Your task to perform on an android device: move a message to another label in the gmail app Image 0: 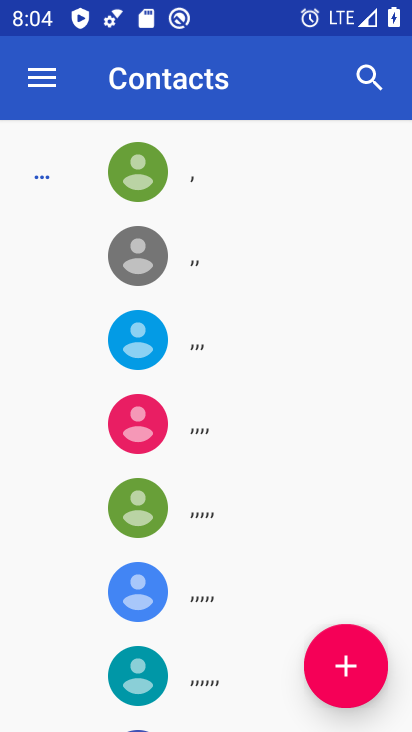
Step 0: press home button
Your task to perform on an android device: move a message to another label in the gmail app Image 1: 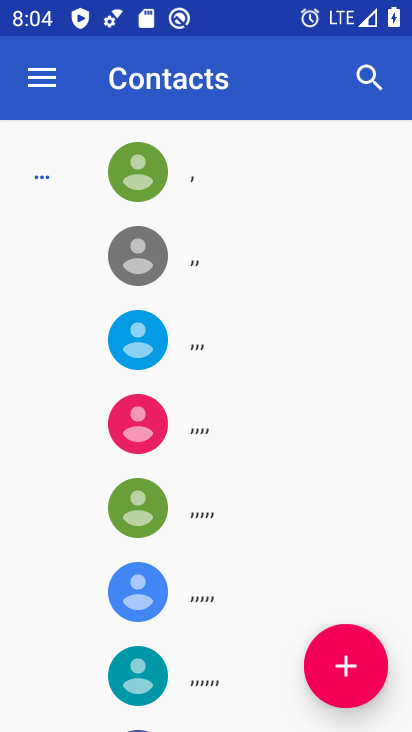
Step 1: press home button
Your task to perform on an android device: move a message to another label in the gmail app Image 2: 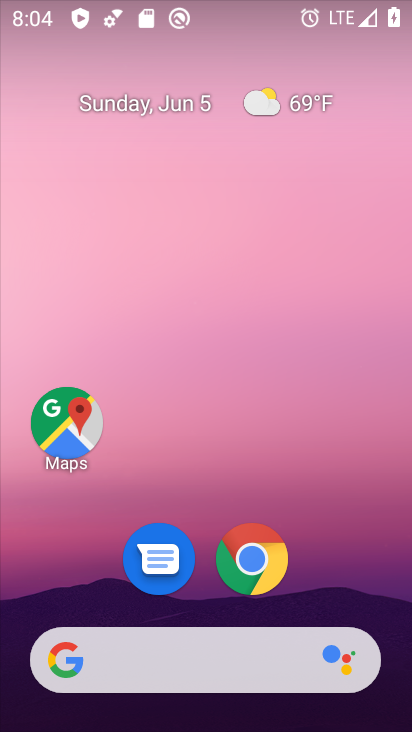
Step 2: drag from (328, 559) to (325, 179)
Your task to perform on an android device: move a message to another label in the gmail app Image 3: 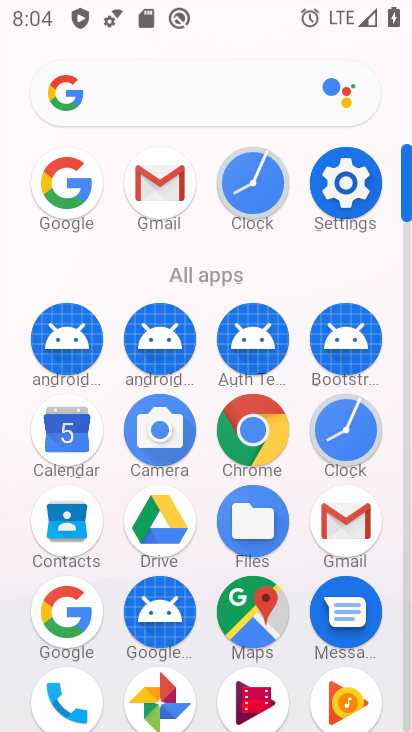
Step 3: click (155, 206)
Your task to perform on an android device: move a message to another label in the gmail app Image 4: 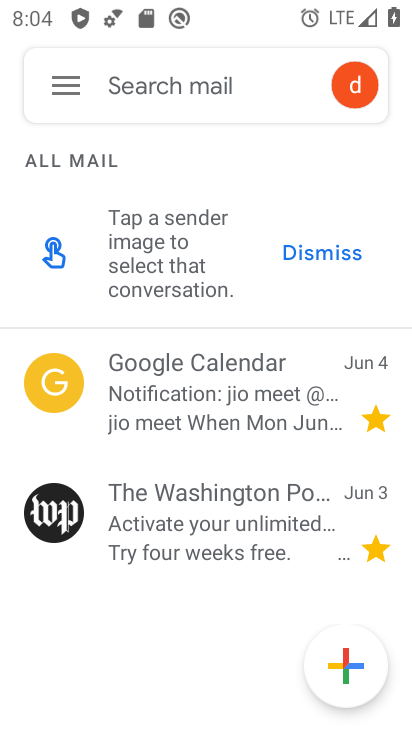
Step 4: click (41, 81)
Your task to perform on an android device: move a message to another label in the gmail app Image 5: 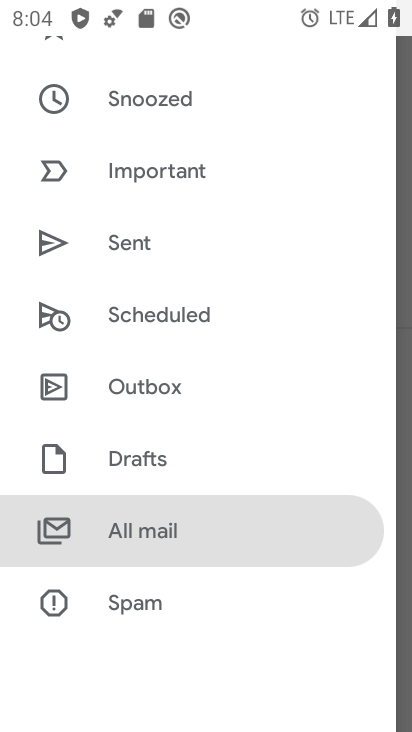
Step 5: click (167, 540)
Your task to perform on an android device: move a message to another label in the gmail app Image 6: 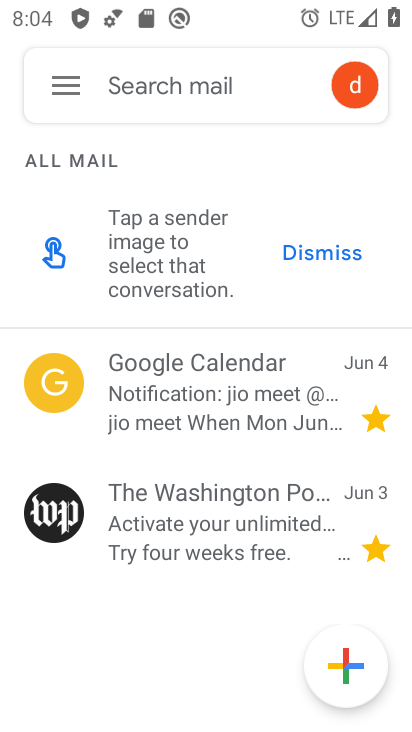
Step 6: click (212, 403)
Your task to perform on an android device: move a message to another label in the gmail app Image 7: 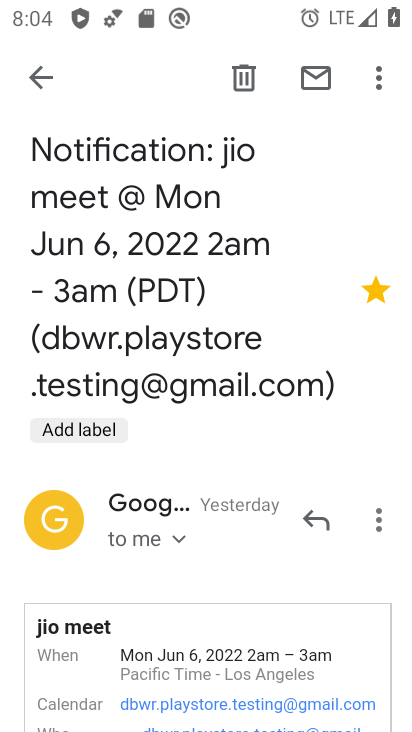
Step 7: click (383, 68)
Your task to perform on an android device: move a message to another label in the gmail app Image 8: 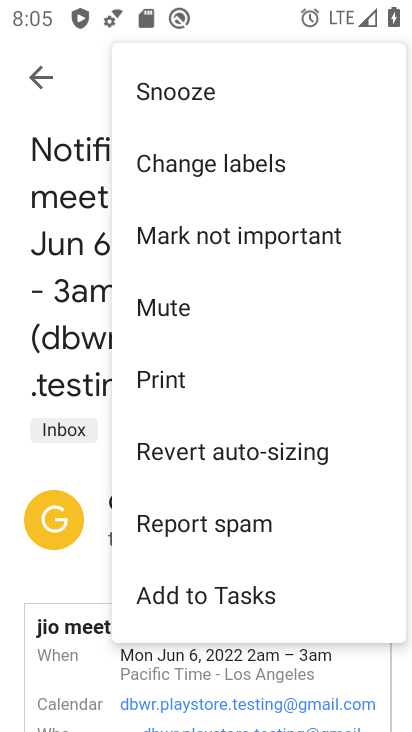
Step 8: drag from (292, 411) to (0, 418)
Your task to perform on an android device: move a message to another label in the gmail app Image 9: 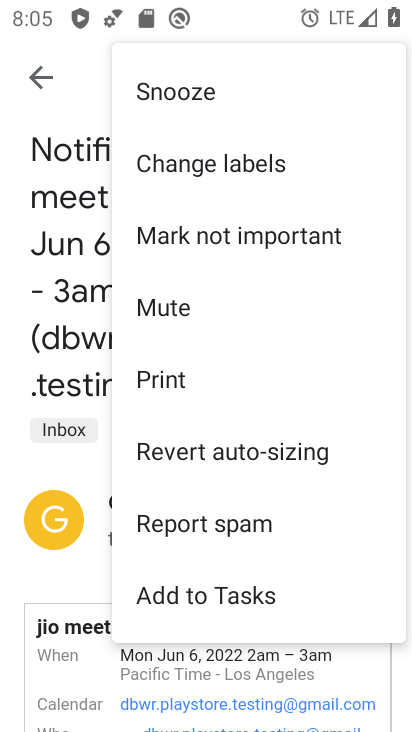
Step 9: click (71, 255)
Your task to perform on an android device: move a message to another label in the gmail app Image 10: 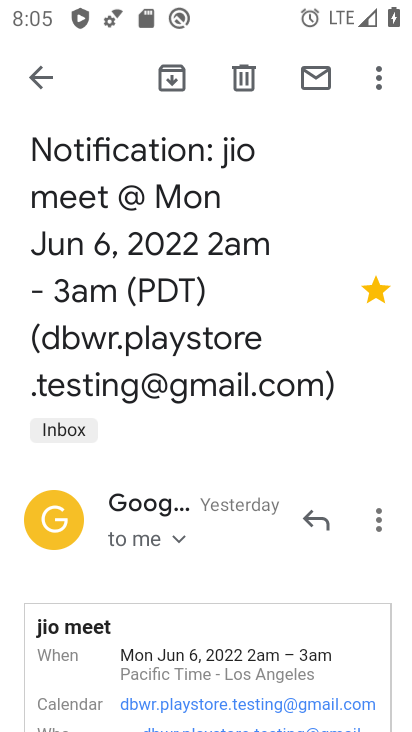
Step 10: click (376, 79)
Your task to perform on an android device: move a message to another label in the gmail app Image 11: 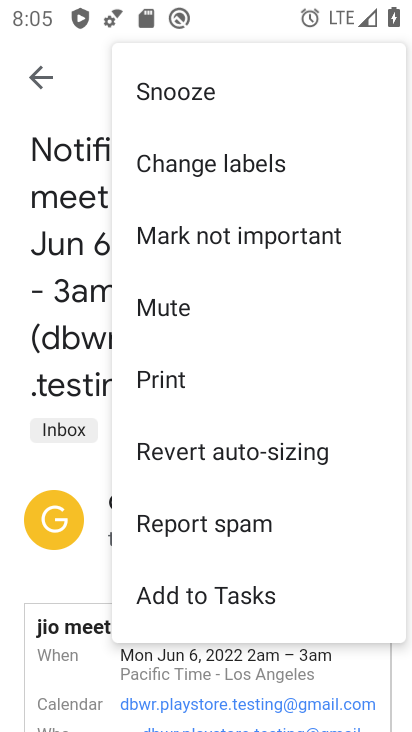
Step 11: task complete